Your task to perform on an android device: Show the shopping cart on ebay.com. Image 0: 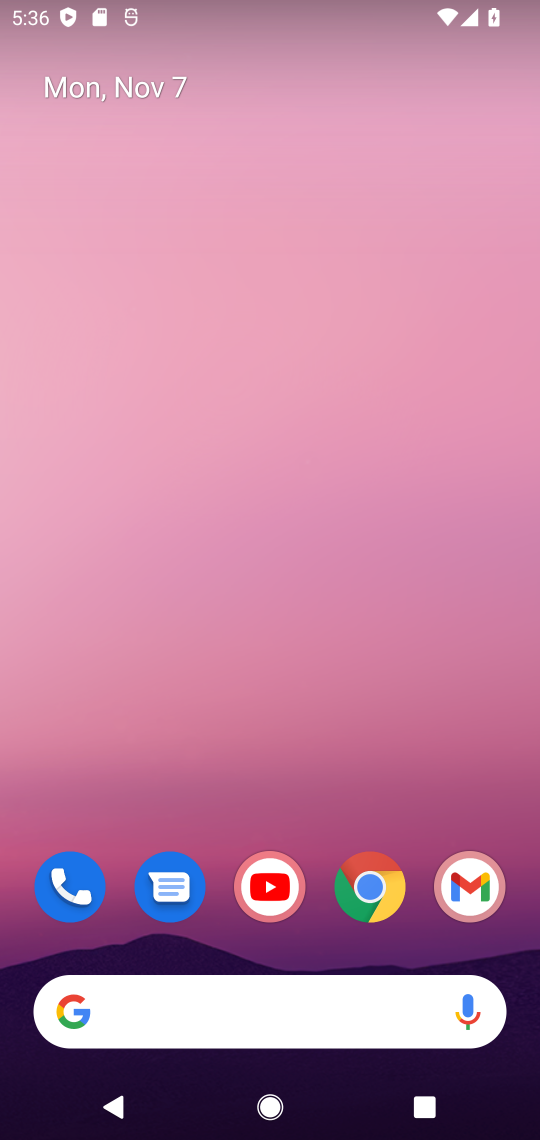
Step 0: click (369, 897)
Your task to perform on an android device: Show the shopping cart on ebay.com. Image 1: 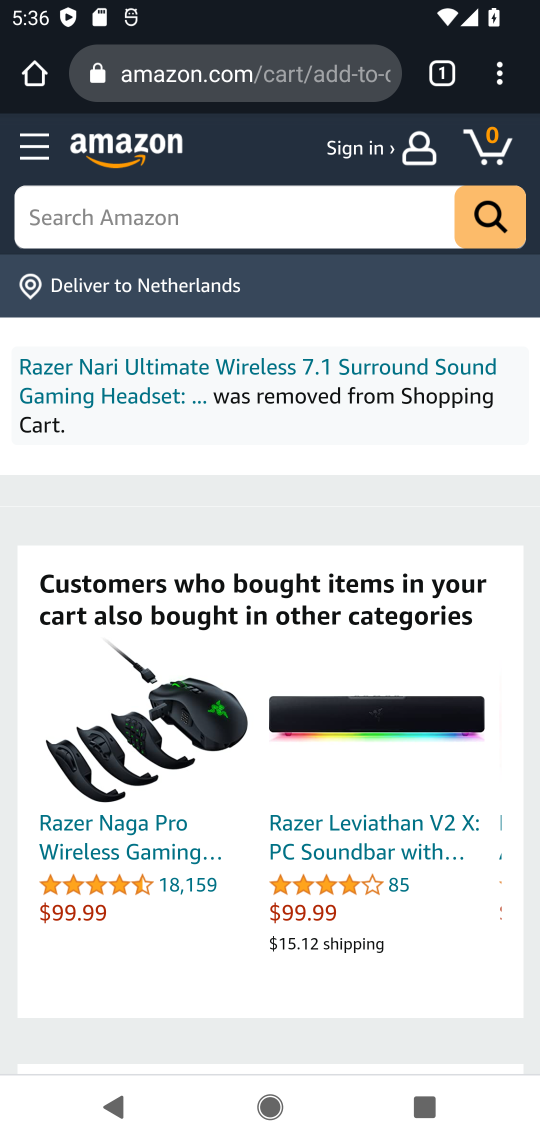
Step 1: click (439, 69)
Your task to perform on an android device: Show the shopping cart on ebay.com. Image 2: 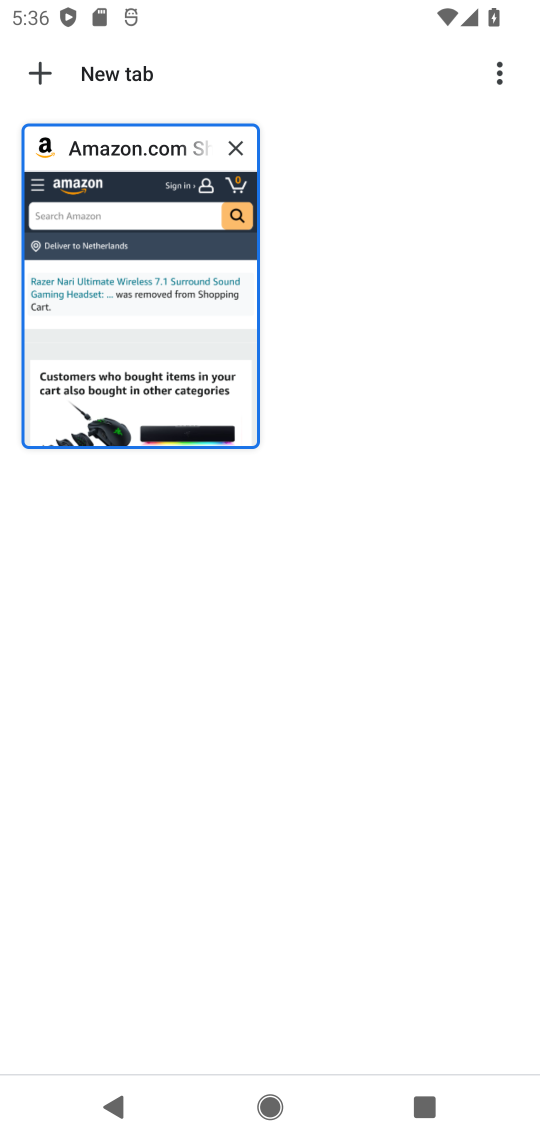
Step 2: click (39, 74)
Your task to perform on an android device: Show the shopping cart on ebay.com. Image 3: 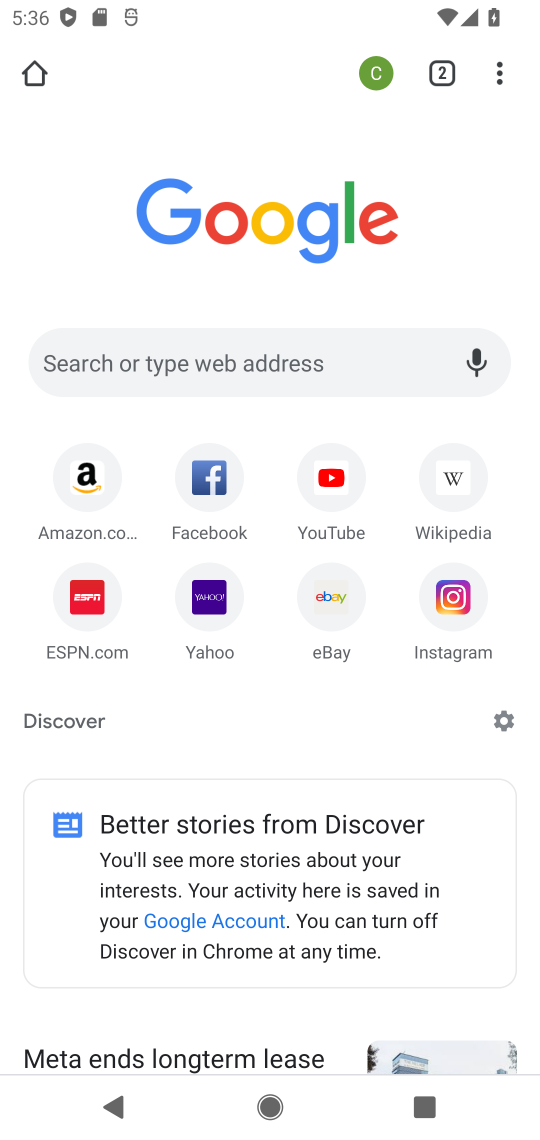
Step 3: click (331, 584)
Your task to perform on an android device: Show the shopping cart on ebay.com. Image 4: 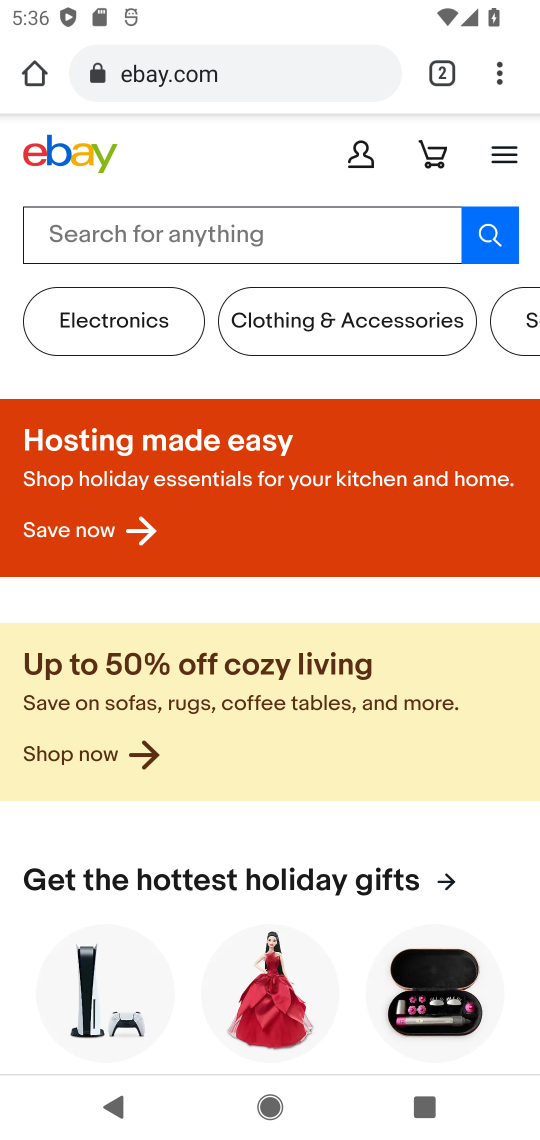
Step 4: click (428, 154)
Your task to perform on an android device: Show the shopping cart on ebay.com. Image 5: 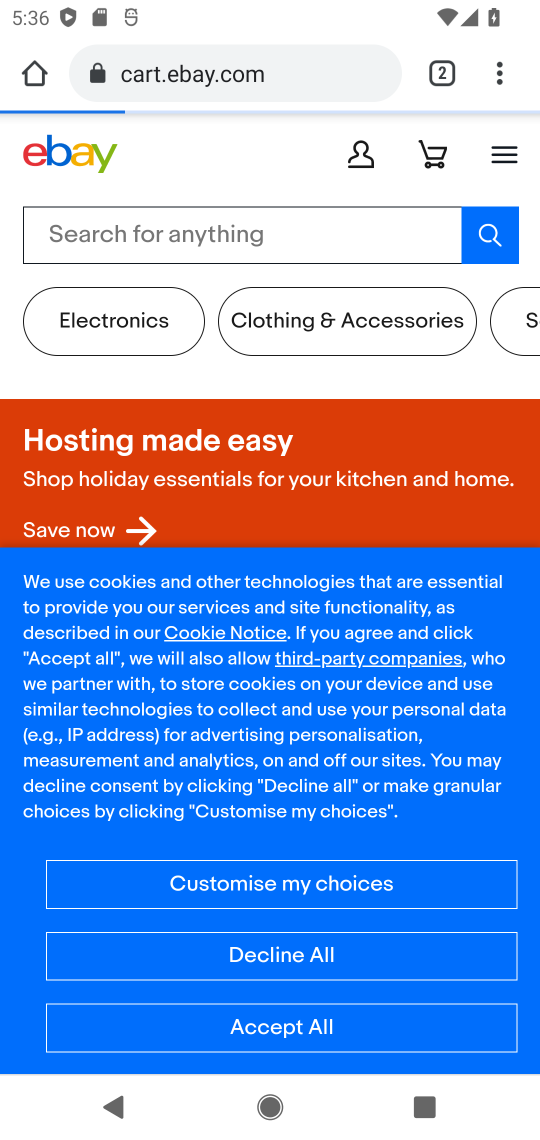
Step 5: click (249, 948)
Your task to perform on an android device: Show the shopping cart on ebay.com. Image 6: 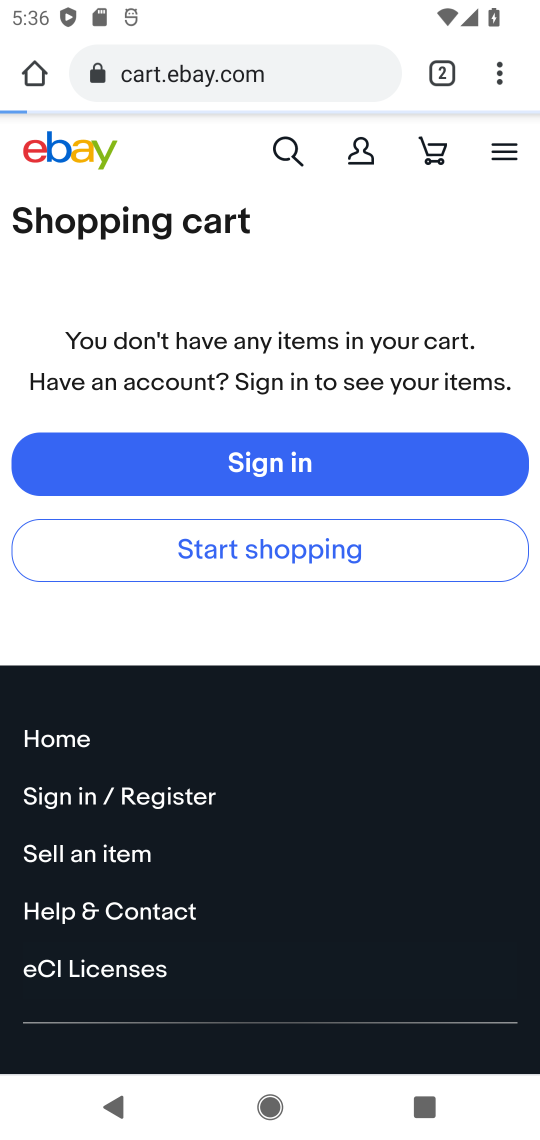
Step 6: task complete